Your task to perform on an android device: turn on priority inbox in the gmail app Image 0: 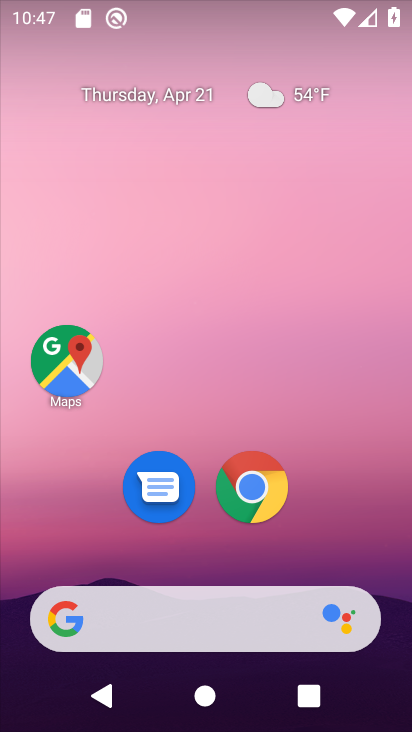
Step 0: drag from (325, 548) to (316, 209)
Your task to perform on an android device: turn on priority inbox in the gmail app Image 1: 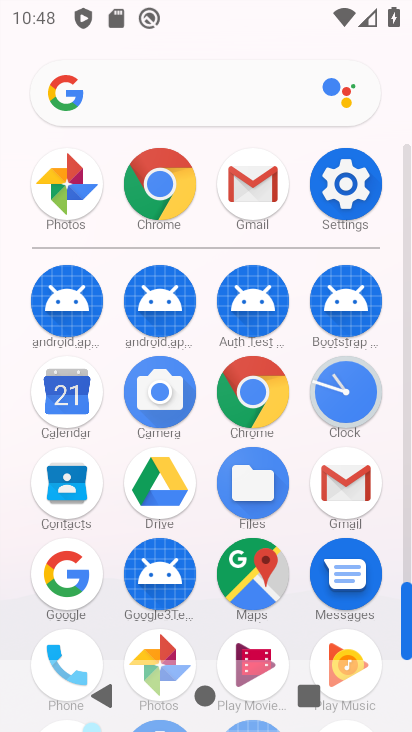
Step 1: drag from (197, 620) to (205, 319)
Your task to perform on an android device: turn on priority inbox in the gmail app Image 2: 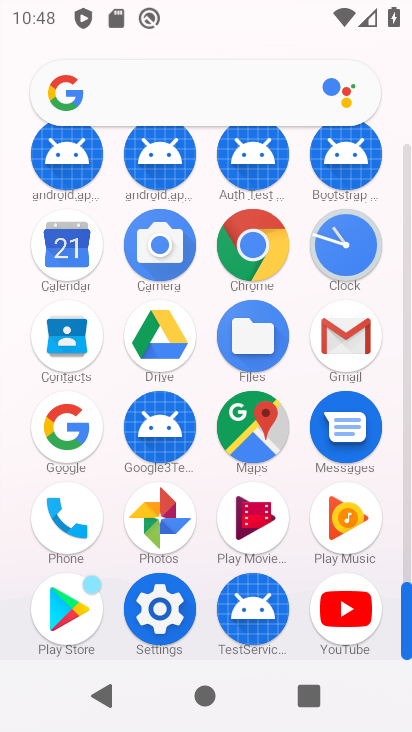
Step 2: click (351, 337)
Your task to perform on an android device: turn on priority inbox in the gmail app Image 3: 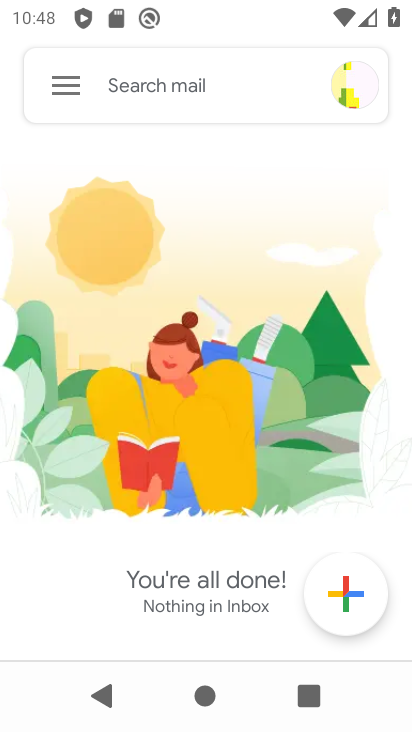
Step 3: click (52, 87)
Your task to perform on an android device: turn on priority inbox in the gmail app Image 4: 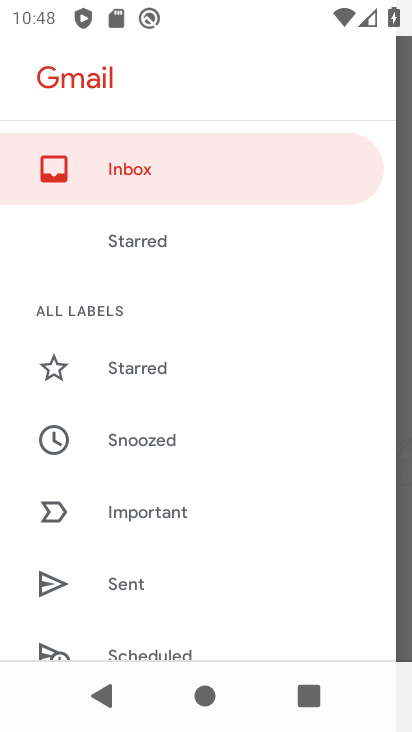
Step 4: drag from (234, 565) to (260, 279)
Your task to perform on an android device: turn on priority inbox in the gmail app Image 5: 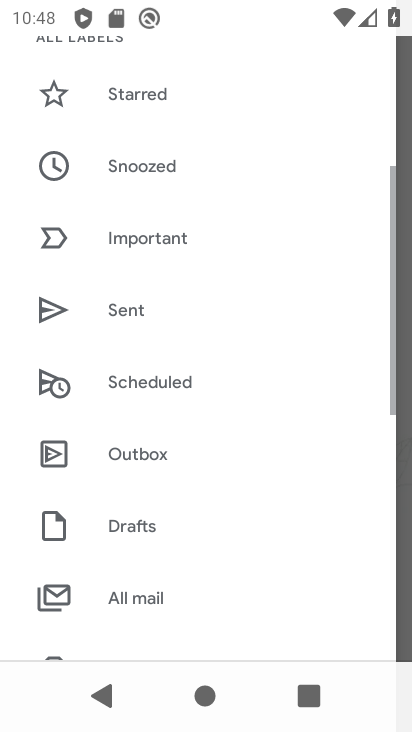
Step 5: drag from (220, 588) to (201, 290)
Your task to perform on an android device: turn on priority inbox in the gmail app Image 6: 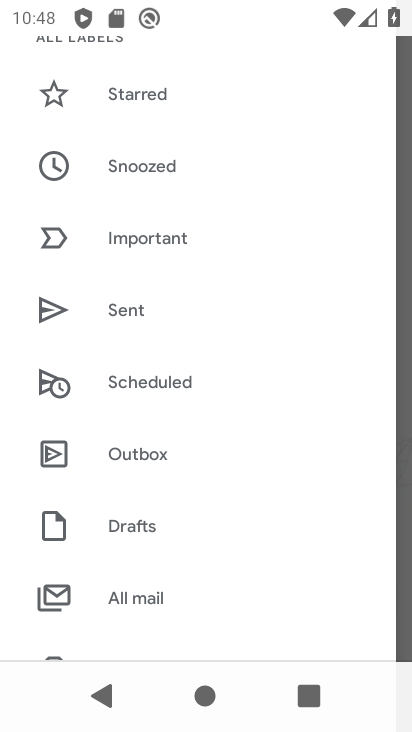
Step 6: drag from (194, 554) to (234, 267)
Your task to perform on an android device: turn on priority inbox in the gmail app Image 7: 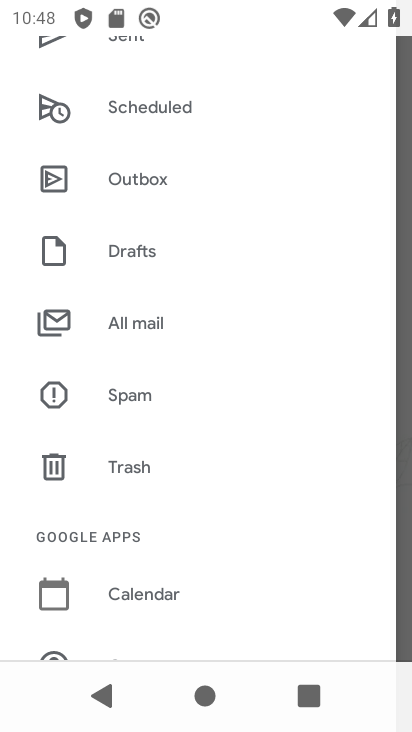
Step 7: drag from (212, 621) to (239, 283)
Your task to perform on an android device: turn on priority inbox in the gmail app Image 8: 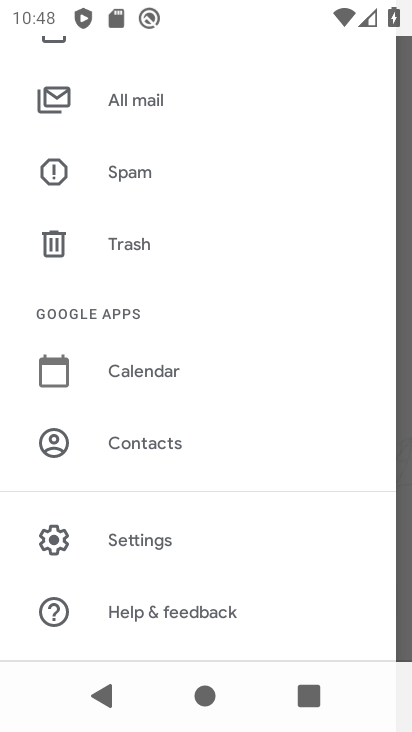
Step 8: click (172, 555)
Your task to perform on an android device: turn on priority inbox in the gmail app Image 9: 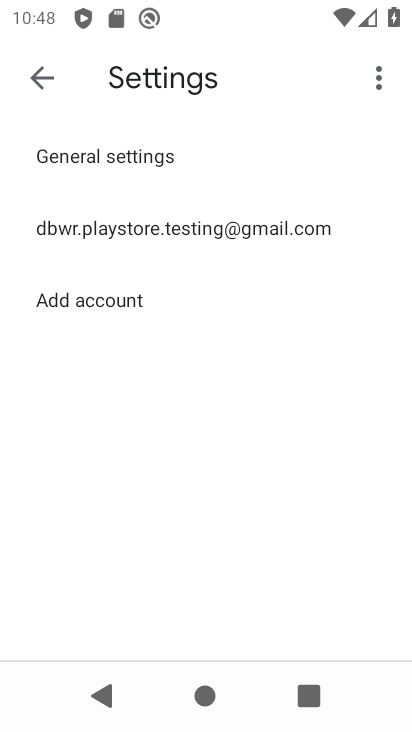
Step 9: click (234, 234)
Your task to perform on an android device: turn on priority inbox in the gmail app Image 10: 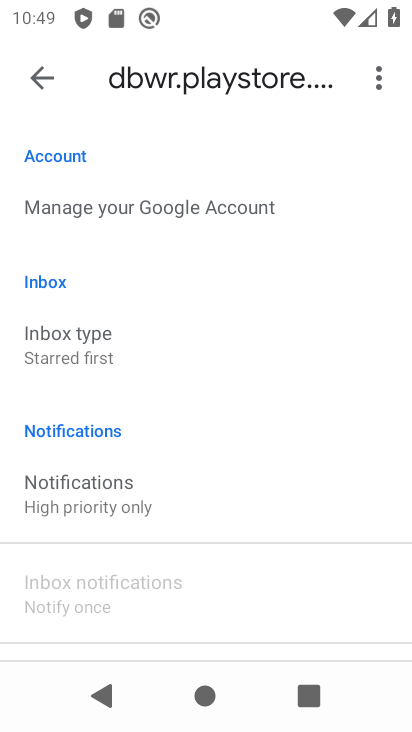
Step 10: click (60, 351)
Your task to perform on an android device: turn on priority inbox in the gmail app Image 11: 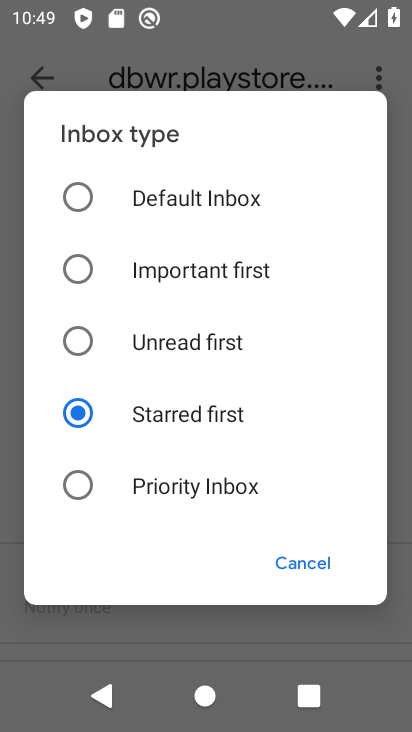
Step 11: click (69, 488)
Your task to perform on an android device: turn on priority inbox in the gmail app Image 12: 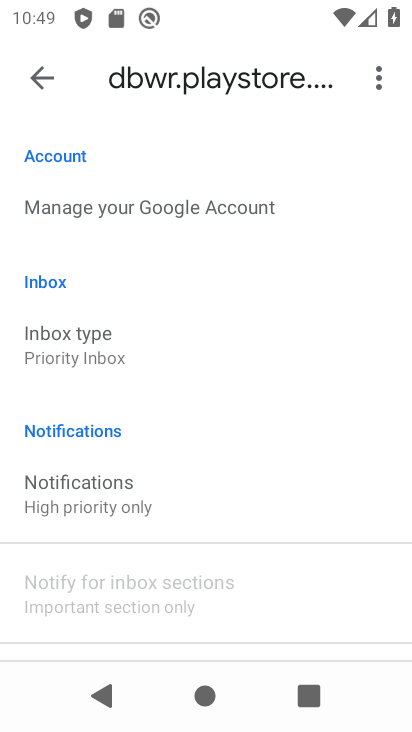
Step 12: task complete